Your task to perform on an android device: turn on javascript in the chrome app Image 0: 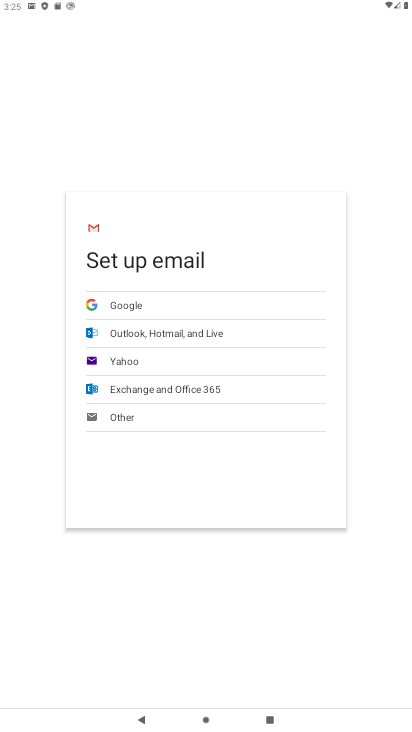
Step 0: press home button
Your task to perform on an android device: turn on javascript in the chrome app Image 1: 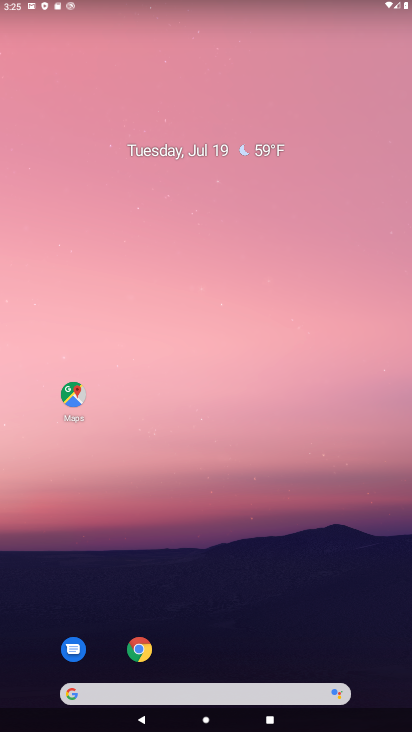
Step 1: click (136, 655)
Your task to perform on an android device: turn on javascript in the chrome app Image 2: 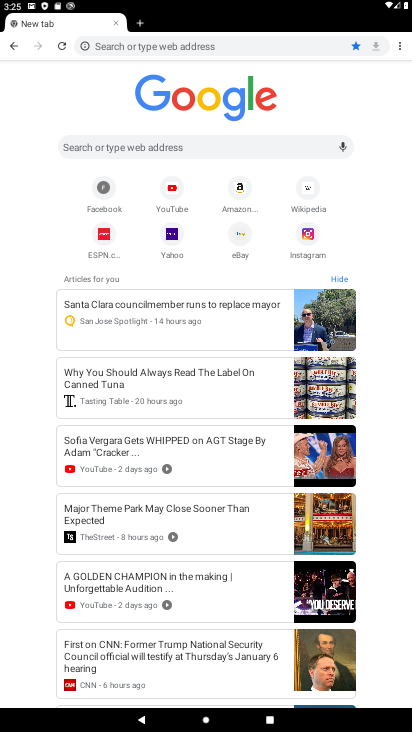
Step 2: click (398, 48)
Your task to perform on an android device: turn on javascript in the chrome app Image 3: 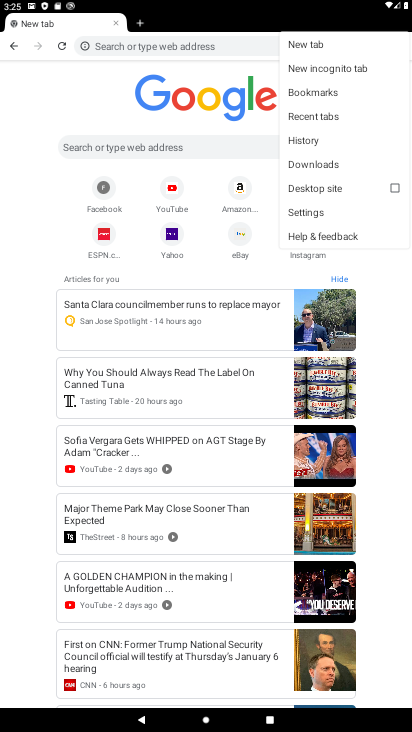
Step 3: click (308, 213)
Your task to perform on an android device: turn on javascript in the chrome app Image 4: 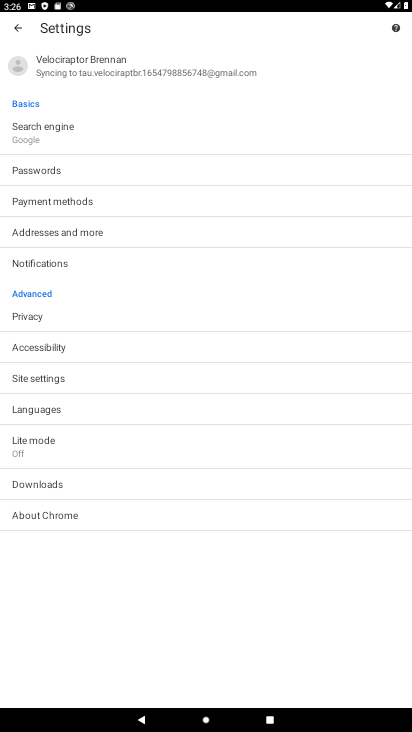
Step 4: click (44, 380)
Your task to perform on an android device: turn on javascript in the chrome app Image 5: 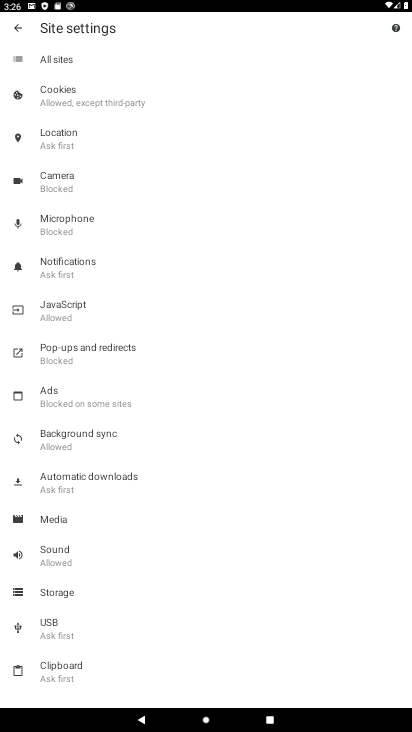
Step 5: click (53, 307)
Your task to perform on an android device: turn on javascript in the chrome app Image 6: 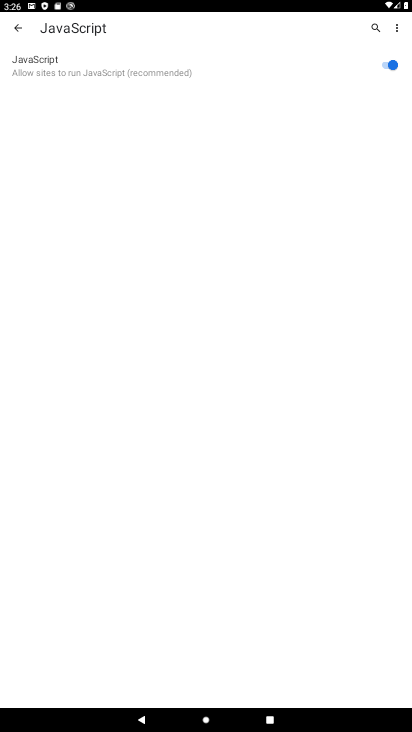
Step 6: task complete